Your task to perform on an android device: turn on airplane mode Image 0: 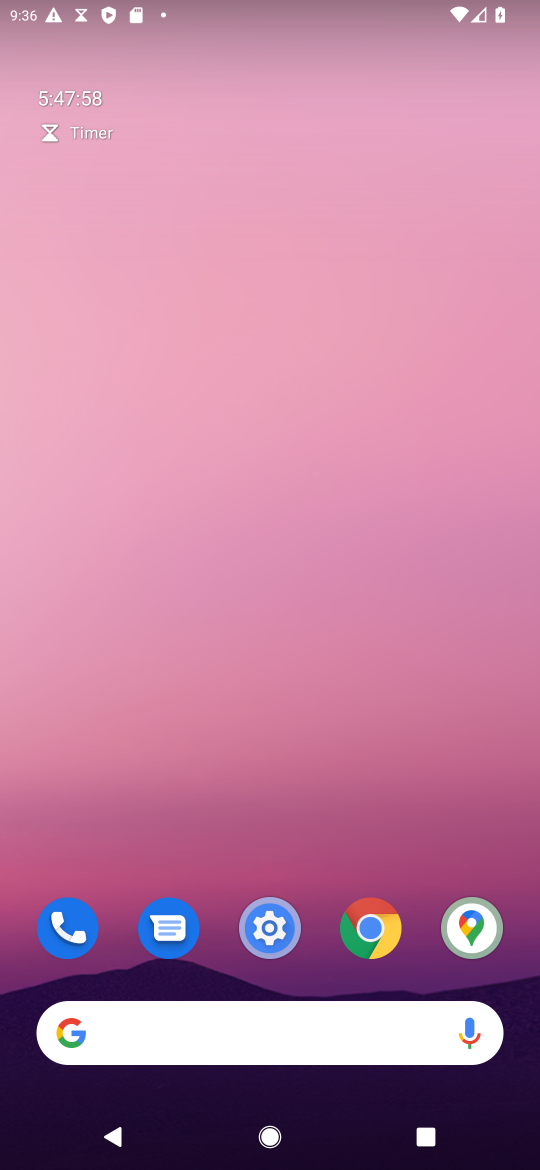
Step 0: press home button
Your task to perform on an android device: turn on airplane mode Image 1: 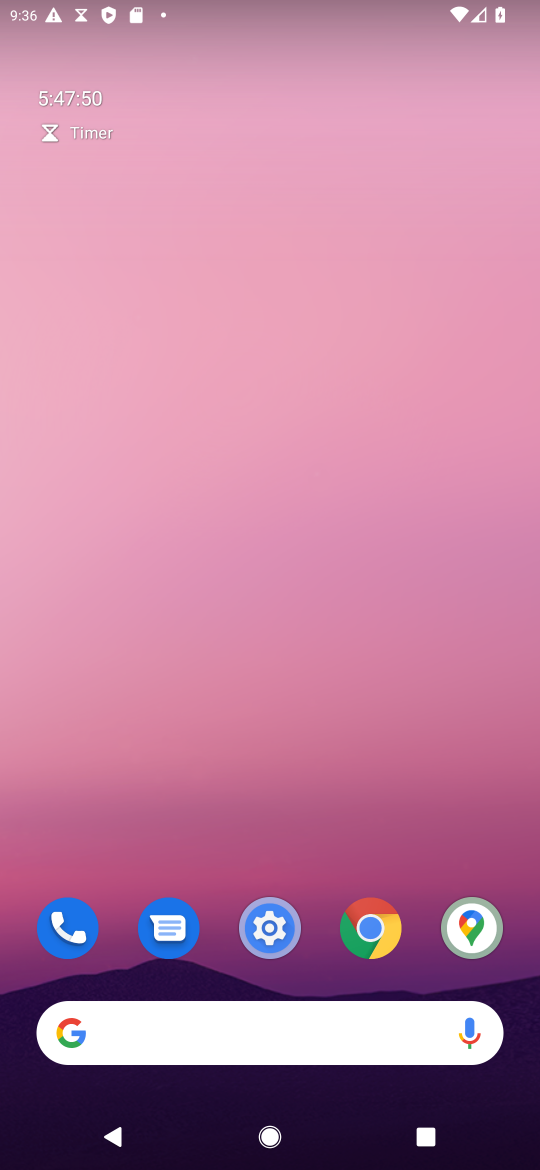
Step 1: drag from (376, 823) to (431, 190)
Your task to perform on an android device: turn on airplane mode Image 2: 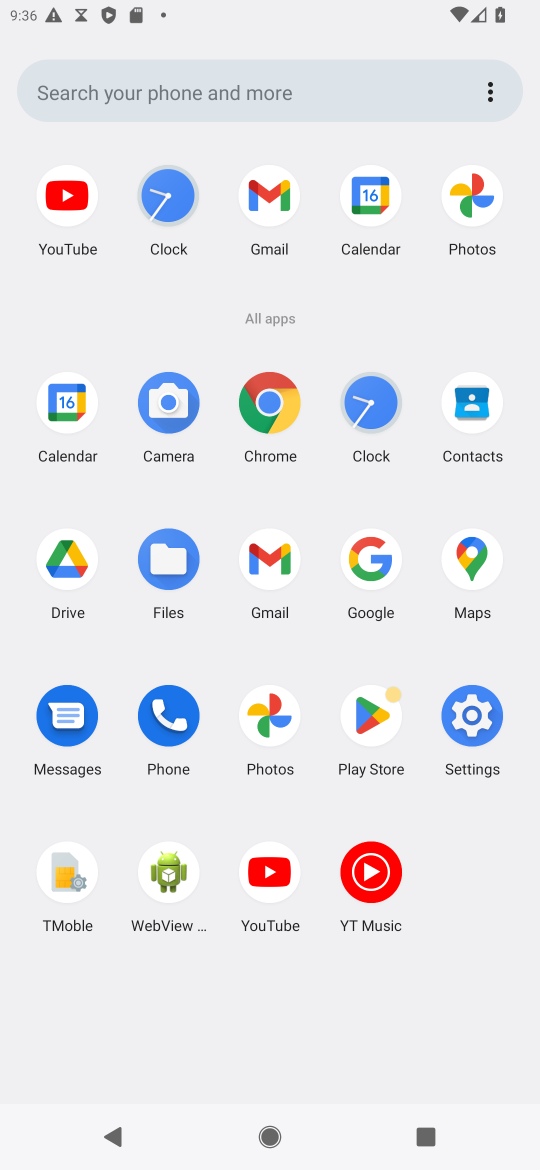
Step 2: click (476, 715)
Your task to perform on an android device: turn on airplane mode Image 3: 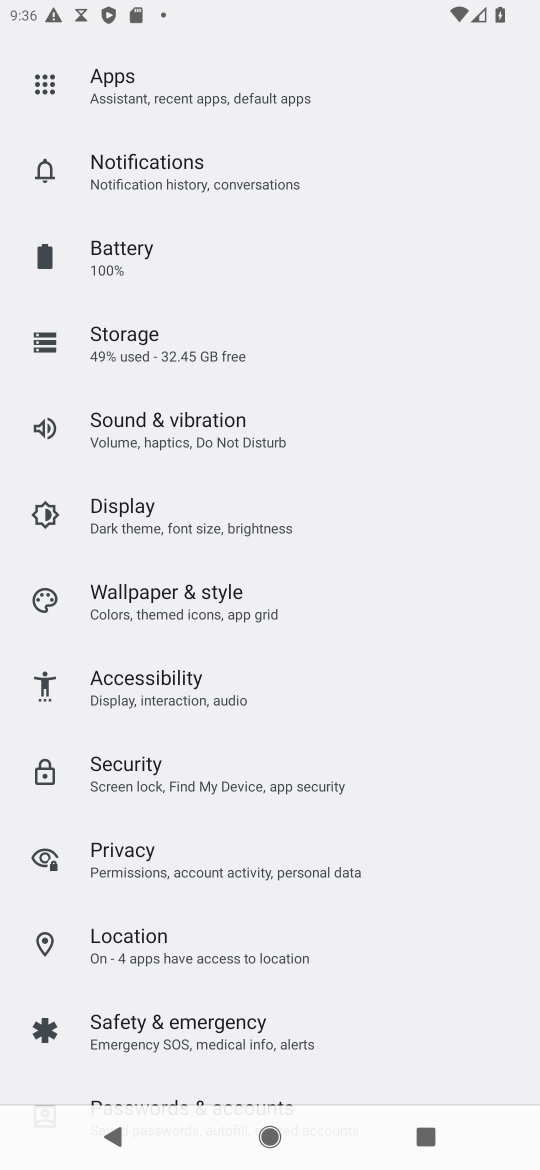
Step 3: drag from (254, 135) to (190, 654)
Your task to perform on an android device: turn on airplane mode Image 4: 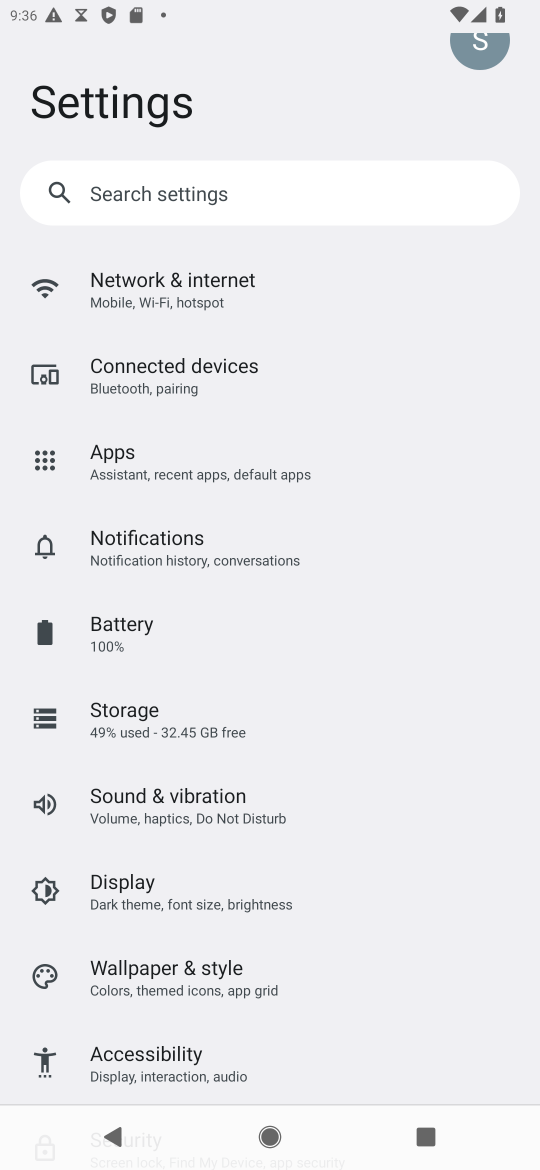
Step 4: click (206, 290)
Your task to perform on an android device: turn on airplane mode Image 5: 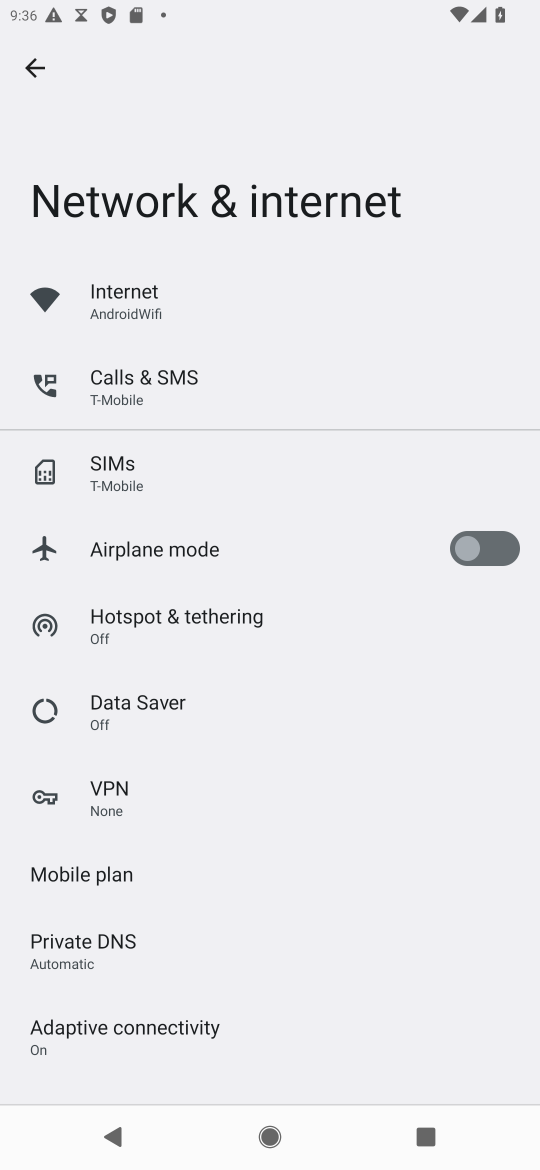
Step 5: click (500, 560)
Your task to perform on an android device: turn on airplane mode Image 6: 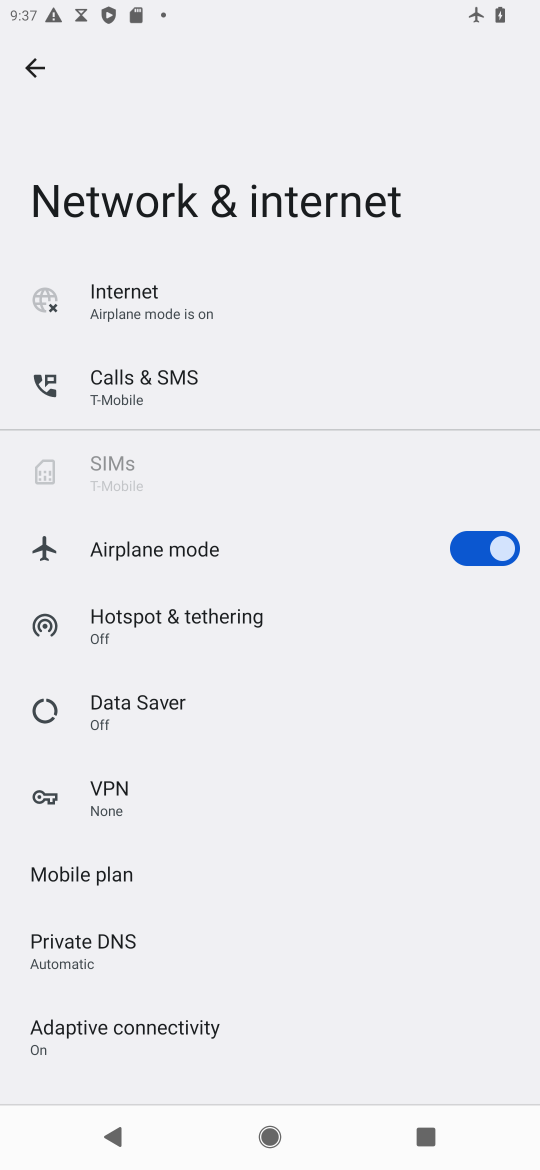
Step 6: task complete